Your task to perform on an android device: toggle improve location accuracy Image 0: 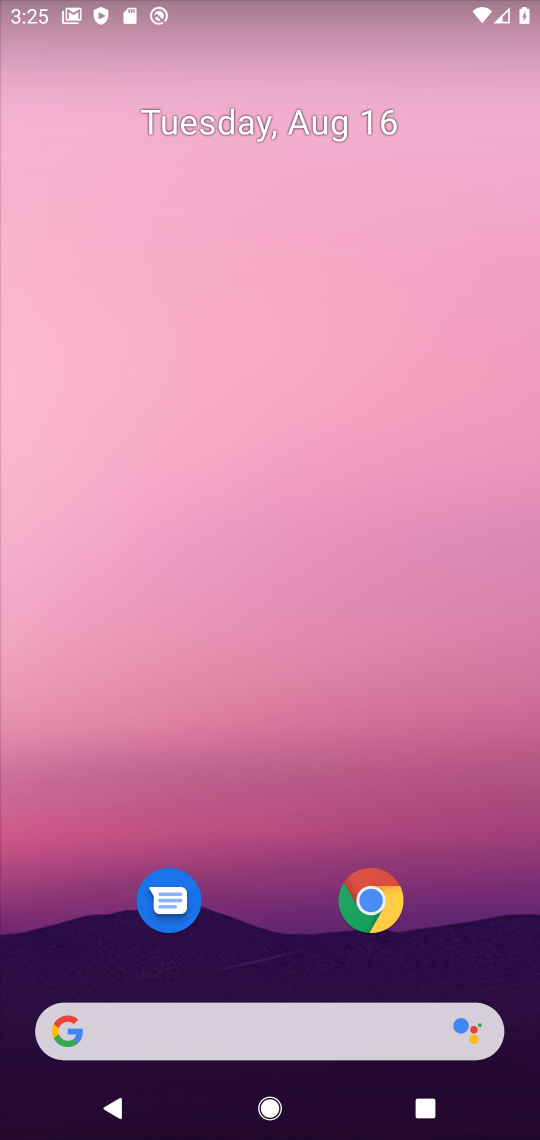
Step 0: drag from (258, 992) to (283, 168)
Your task to perform on an android device: toggle improve location accuracy Image 1: 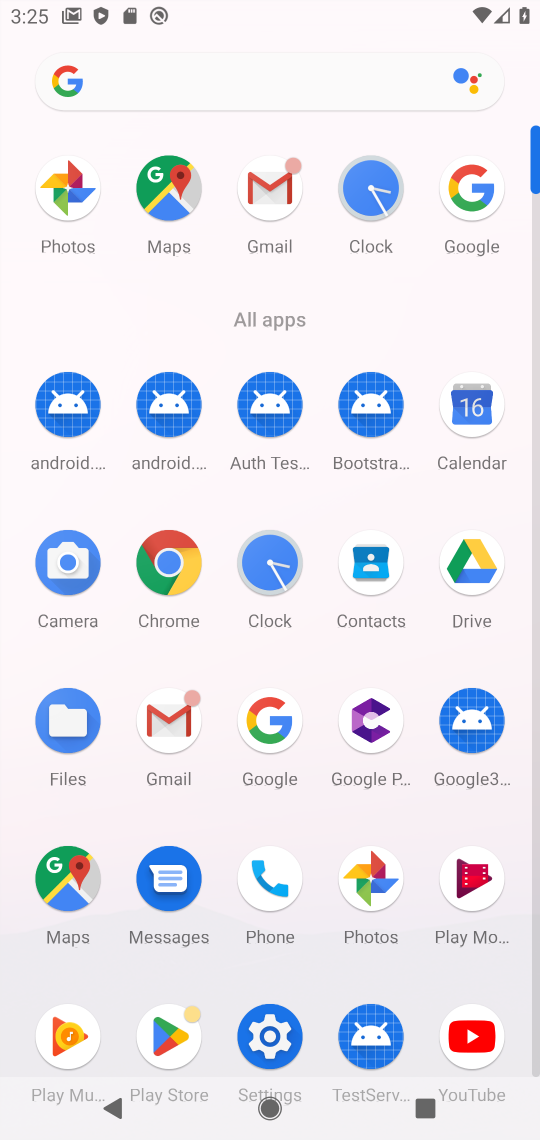
Step 1: click (281, 99)
Your task to perform on an android device: toggle improve location accuracy Image 2: 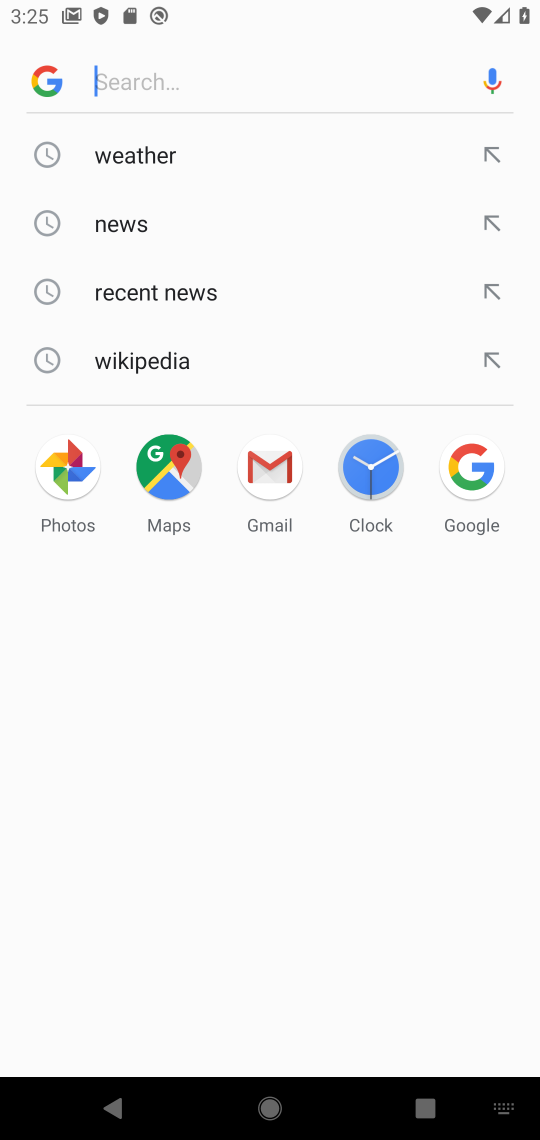
Step 2: press home button
Your task to perform on an android device: toggle improve location accuracy Image 3: 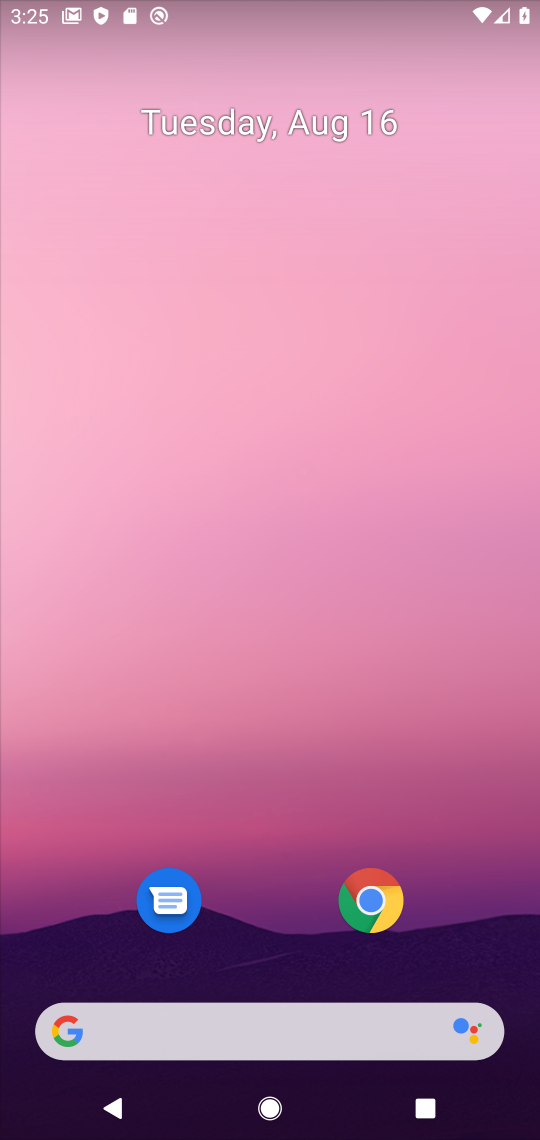
Step 3: drag from (264, 968) to (264, 89)
Your task to perform on an android device: toggle improve location accuracy Image 4: 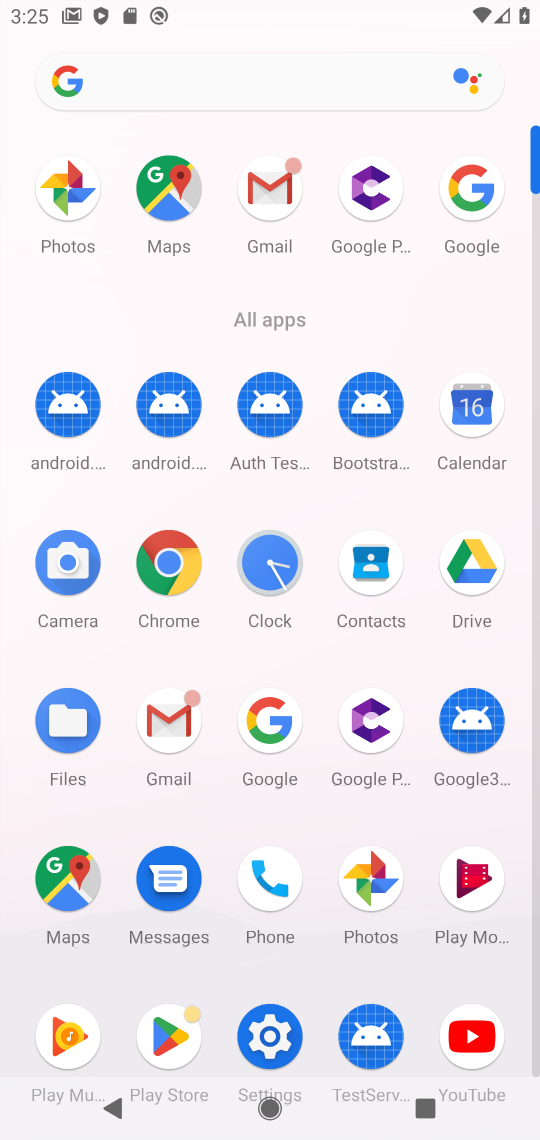
Step 4: click (280, 1026)
Your task to perform on an android device: toggle improve location accuracy Image 5: 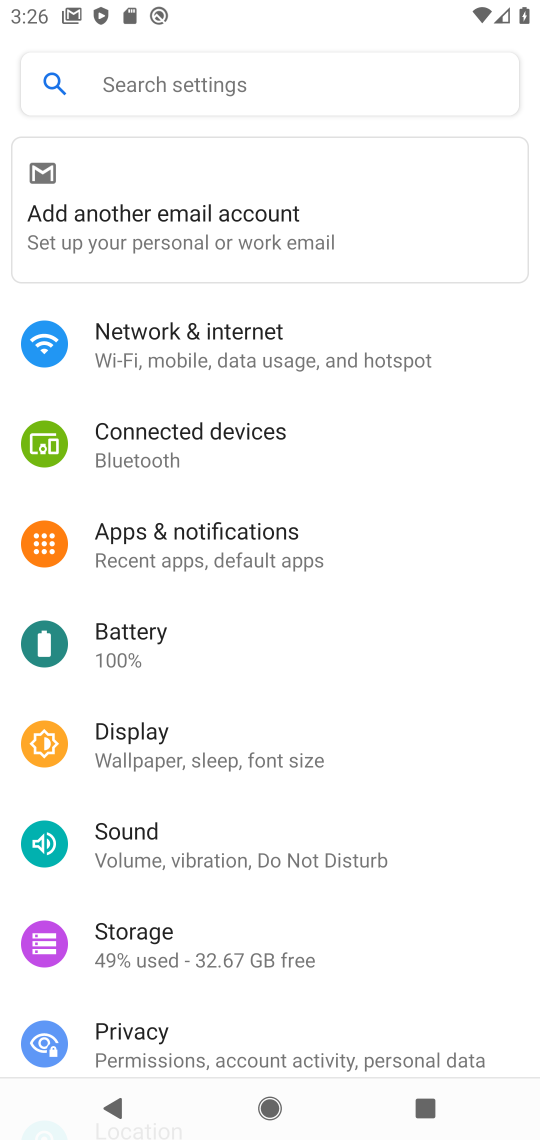
Step 5: drag from (179, 963) to (168, 499)
Your task to perform on an android device: toggle improve location accuracy Image 6: 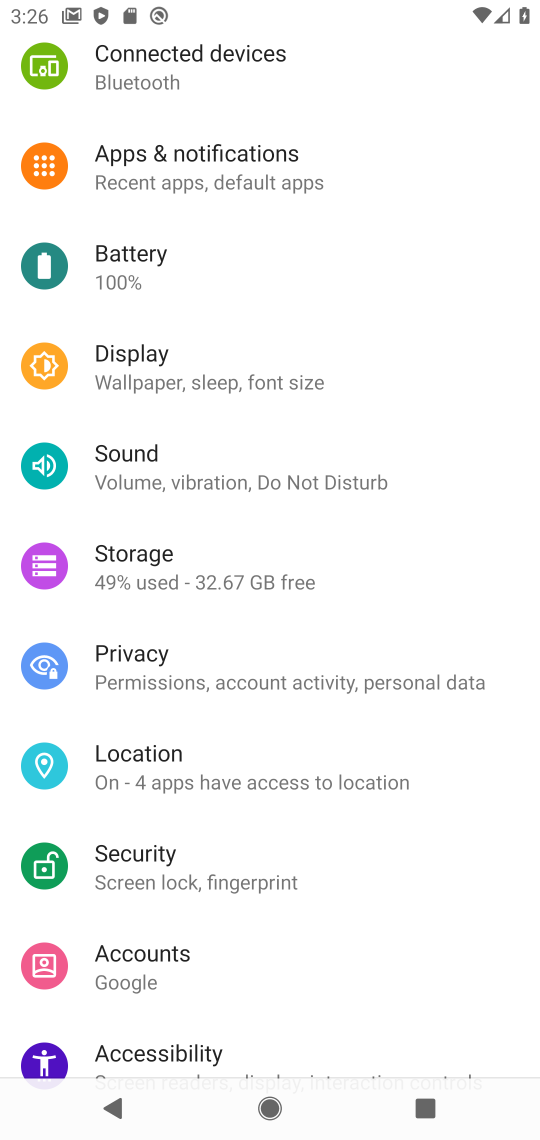
Step 6: drag from (145, 961) to (164, 619)
Your task to perform on an android device: toggle improve location accuracy Image 7: 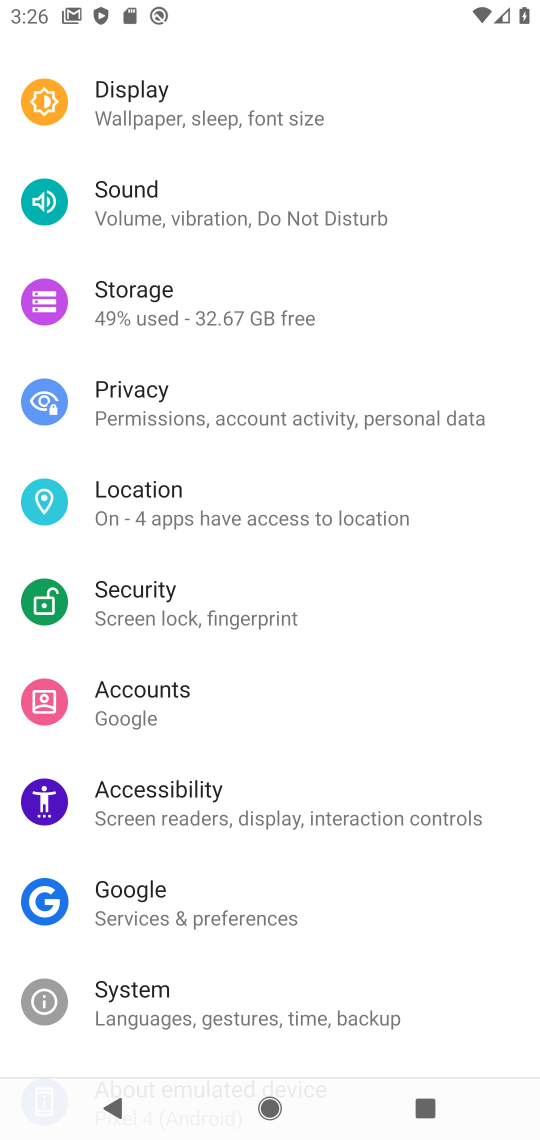
Step 7: click (136, 489)
Your task to perform on an android device: toggle improve location accuracy Image 8: 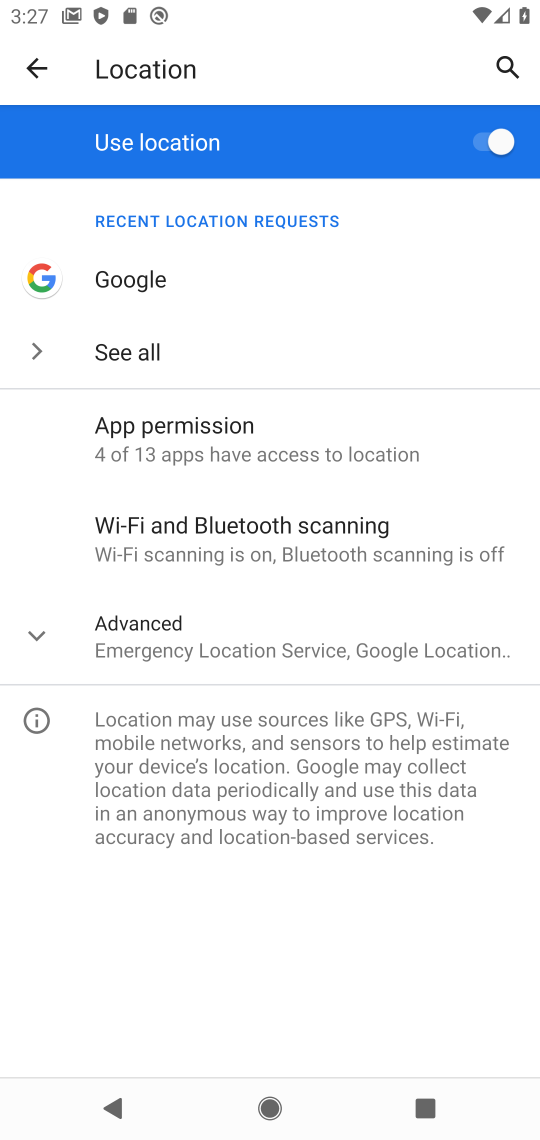
Step 8: click (157, 619)
Your task to perform on an android device: toggle improve location accuracy Image 9: 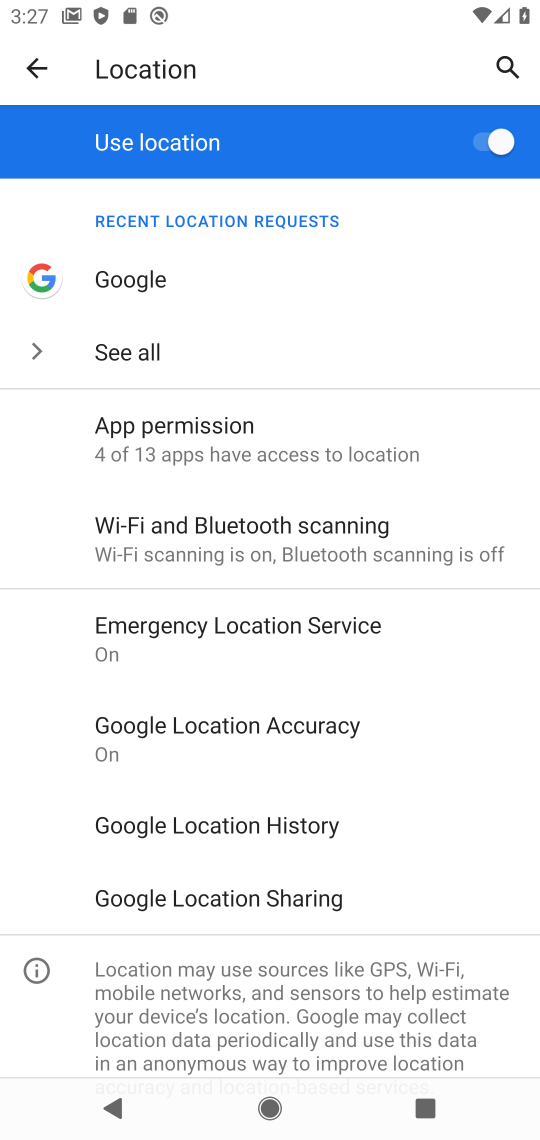
Step 9: click (293, 728)
Your task to perform on an android device: toggle improve location accuracy Image 10: 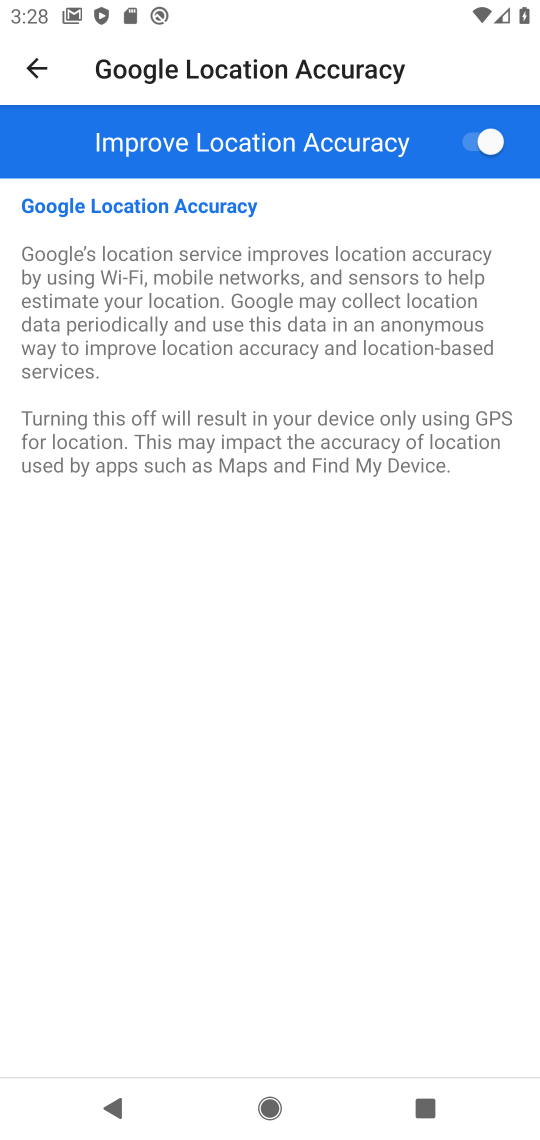
Step 10: click (496, 142)
Your task to perform on an android device: toggle improve location accuracy Image 11: 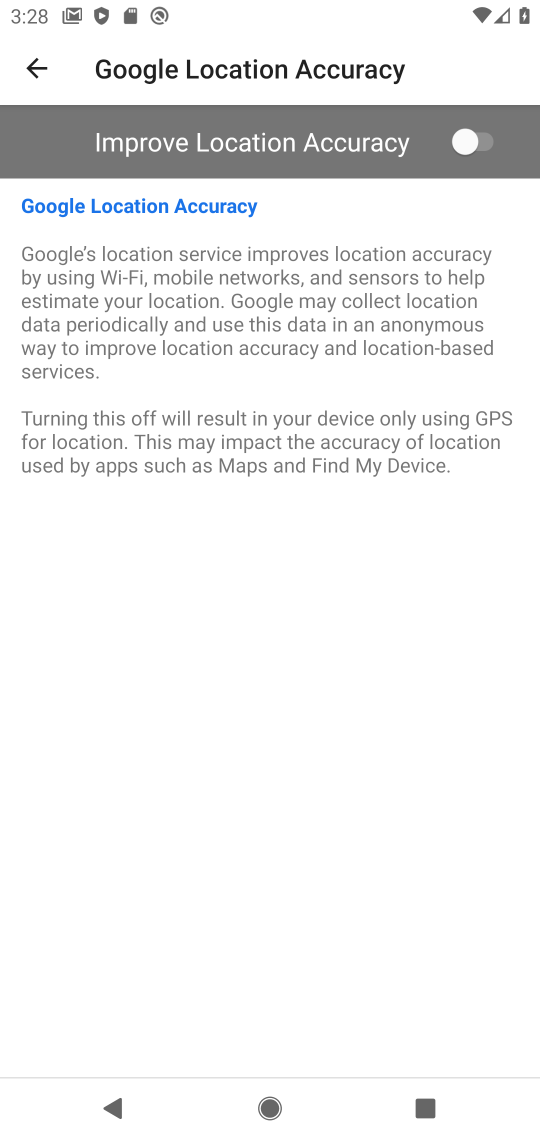
Step 11: task complete